Your task to perform on an android device: change text size in settings app Image 0: 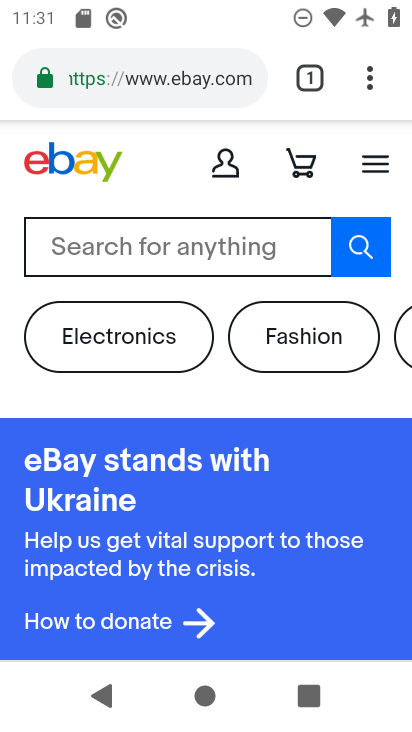
Step 0: press back button
Your task to perform on an android device: change text size in settings app Image 1: 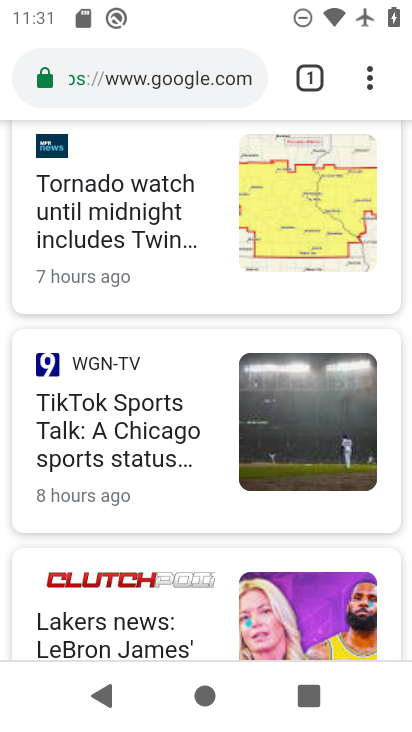
Step 1: press back button
Your task to perform on an android device: change text size in settings app Image 2: 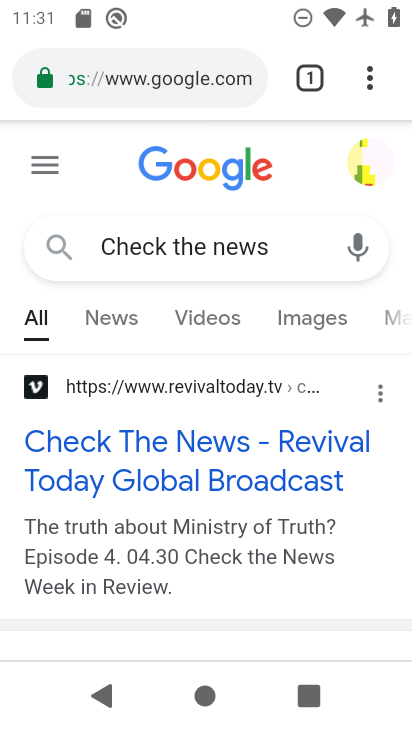
Step 2: press home button
Your task to perform on an android device: change text size in settings app Image 3: 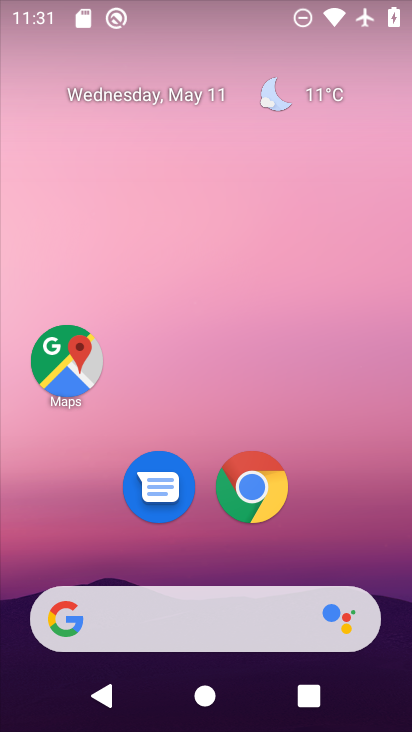
Step 3: drag from (316, 565) to (275, 33)
Your task to perform on an android device: change text size in settings app Image 4: 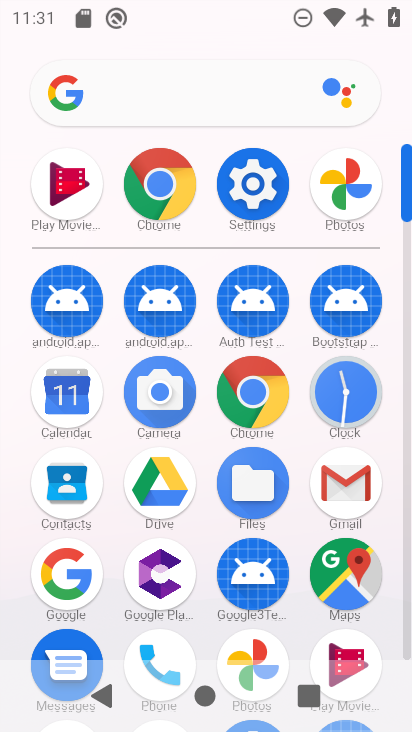
Step 4: drag from (9, 576) to (9, 303)
Your task to perform on an android device: change text size in settings app Image 5: 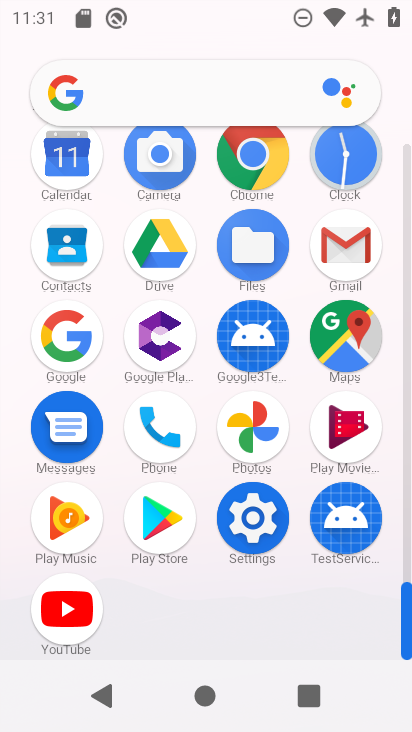
Step 5: click (251, 513)
Your task to perform on an android device: change text size in settings app Image 6: 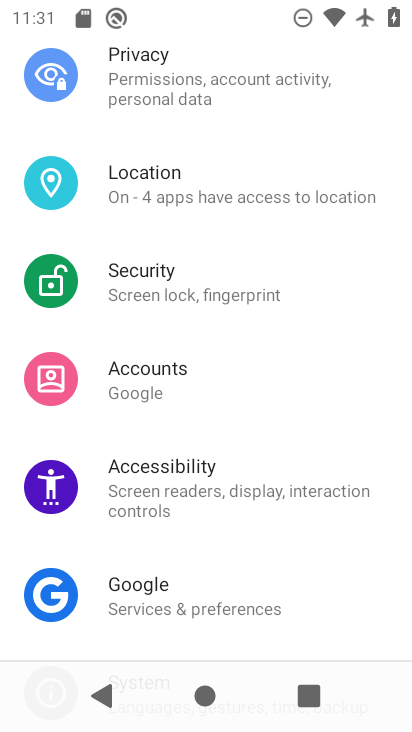
Step 6: drag from (237, 523) to (243, 243)
Your task to perform on an android device: change text size in settings app Image 7: 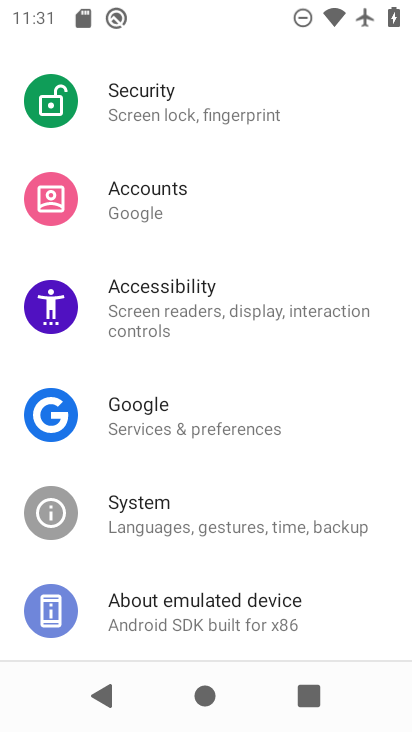
Step 7: drag from (252, 537) to (249, 258)
Your task to perform on an android device: change text size in settings app Image 8: 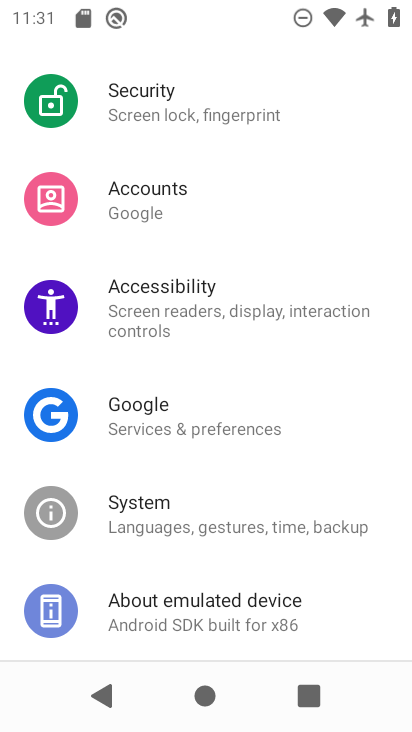
Step 8: drag from (210, 283) to (207, 562)
Your task to perform on an android device: change text size in settings app Image 9: 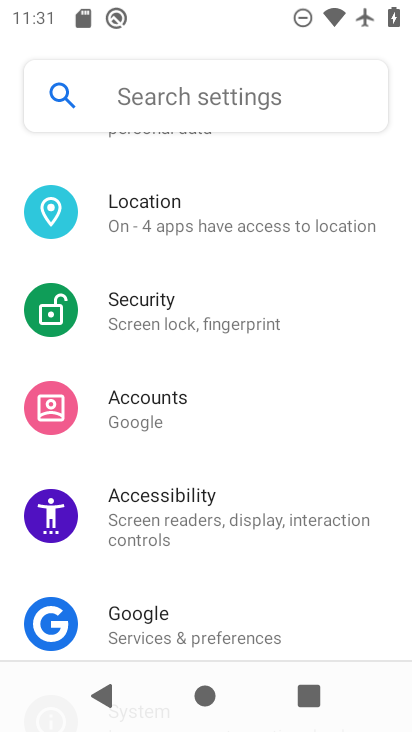
Step 9: drag from (250, 259) to (218, 530)
Your task to perform on an android device: change text size in settings app Image 10: 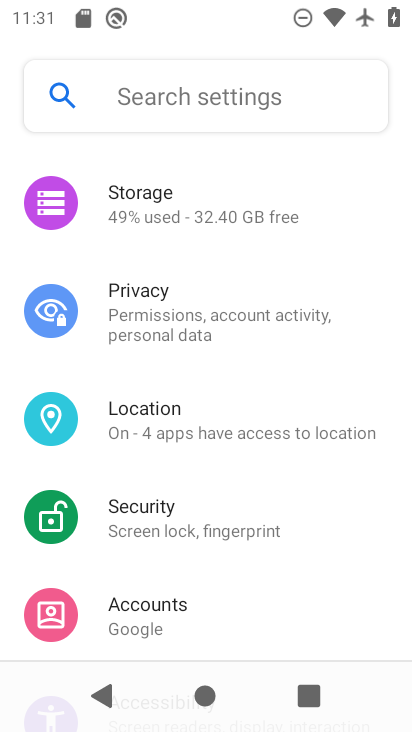
Step 10: drag from (234, 328) to (216, 525)
Your task to perform on an android device: change text size in settings app Image 11: 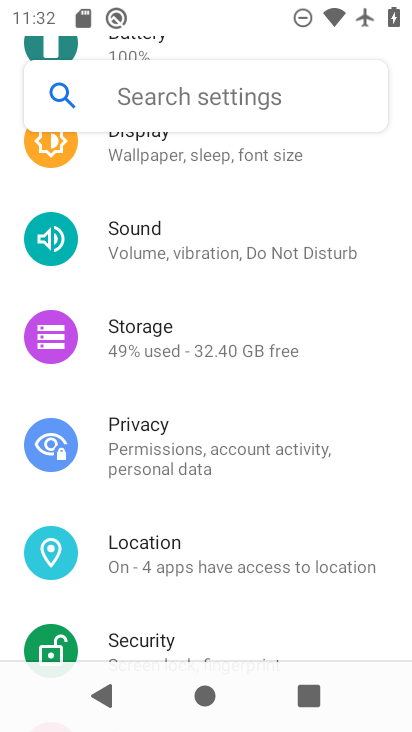
Step 11: click (176, 151)
Your task to perform on an android device: change text size in settings app Image 12: 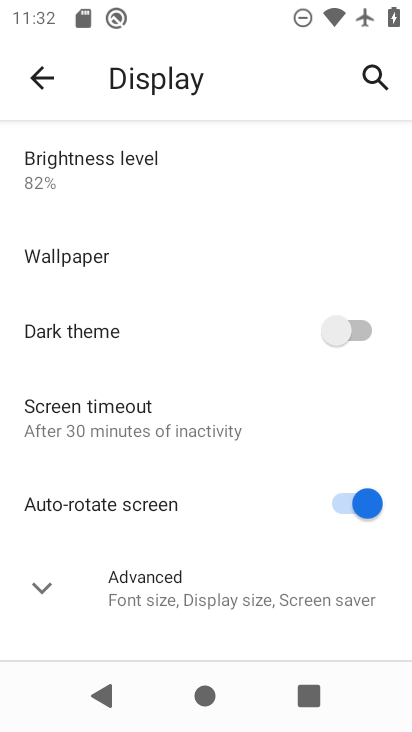
Step 12: click (38, 590)
Your task to perform on an android device: change text size in settings app Image 13: 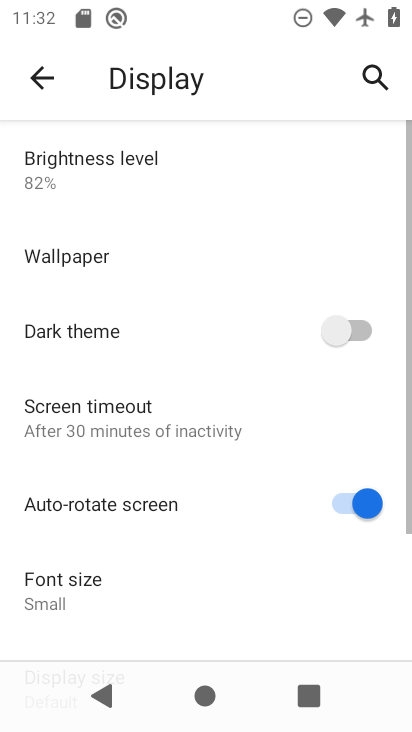
Step 13: drag from (174, 565) to (184, 257)
Your task to perform on an android device: change text size in settings app Image 14: 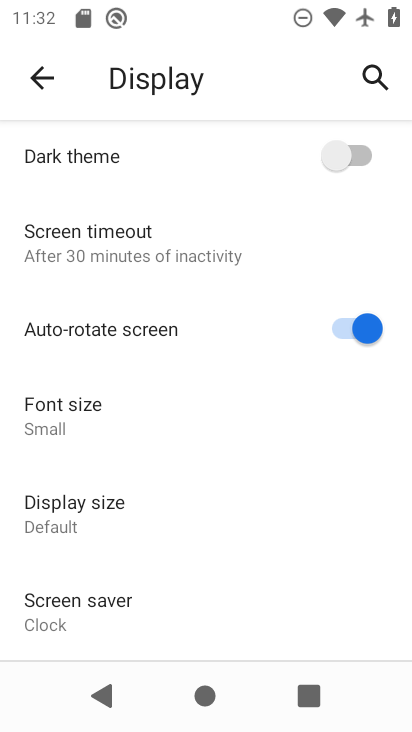
Step 14: click (79, 405)
Your task to perform on an android device: change text size in settings app Image 15: 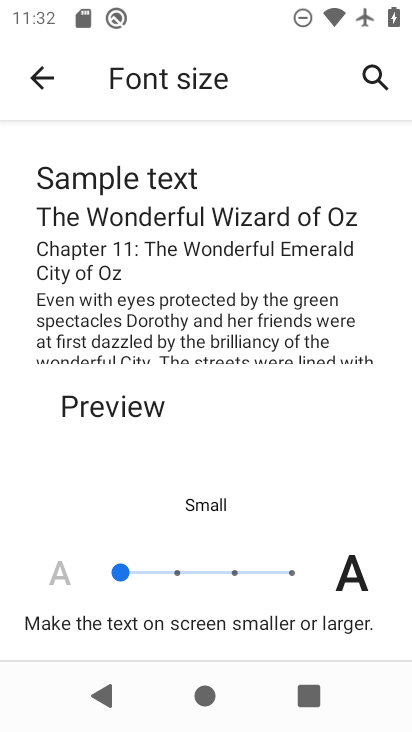
Step 15: click (281, 576)
Your task to perform on an android device: change text size in settings app Image 16: 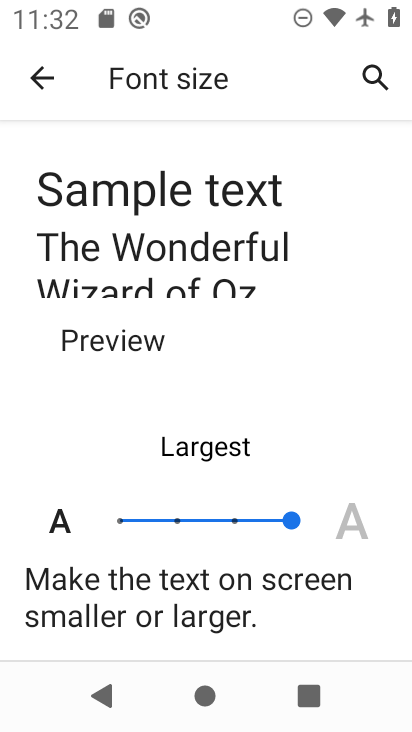
Step 16: task complete